Your task to perform on an android device: Go to location settings Image 0: 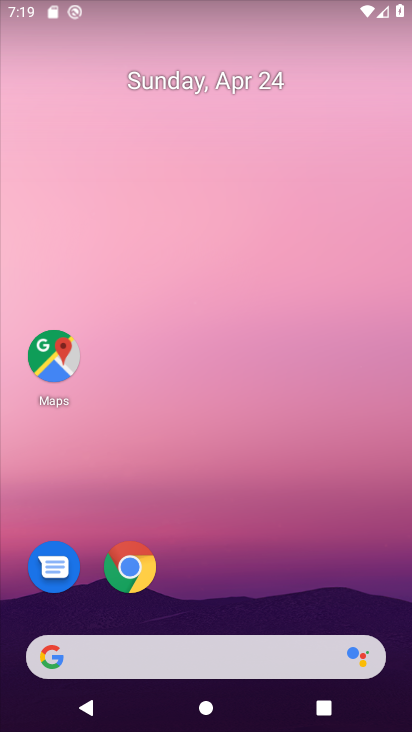
Step 0: drag from (277, 424) to (263, 5)
Your task to perform on an android device: Go to location settings Image 1: 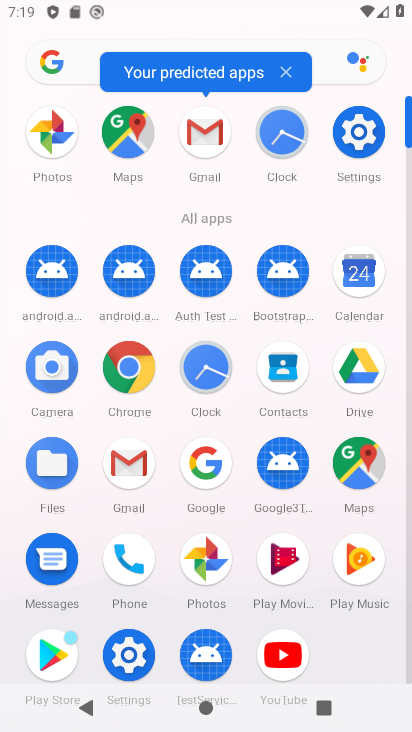
Step 1: drag from (357, 190) to (349, 140)
Your task to perform on an android device: Go to location settings Image 2: 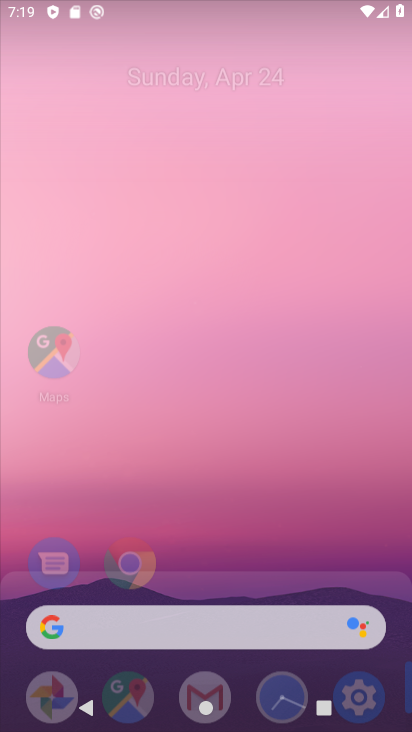
Step 2: click (371, 143)
Your task to perform on an android device: Go to location settings Image 3: 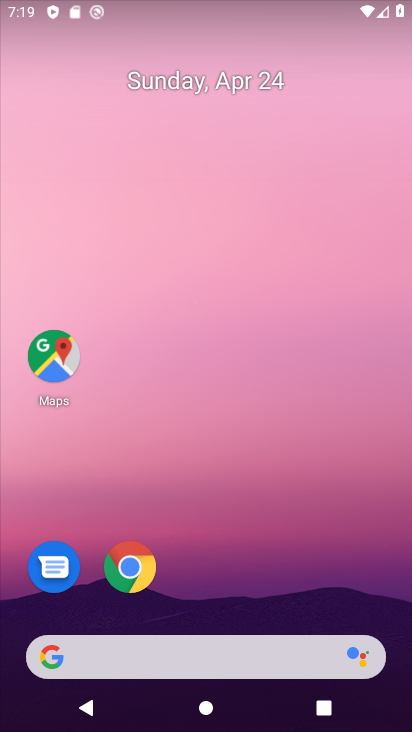
Step 3: drag from (329, 517) to (339, 97)
Your task to perform on an android device: Go to location settings Image 4: 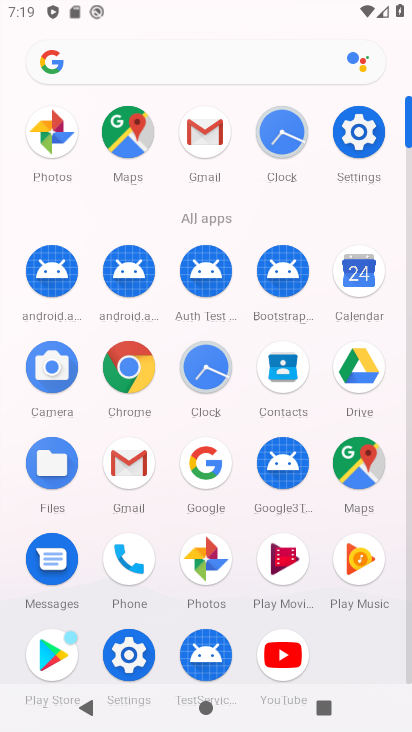
Step 4: click (351, 123)
Your task to perform on an android device: Go to location settings Image 5: 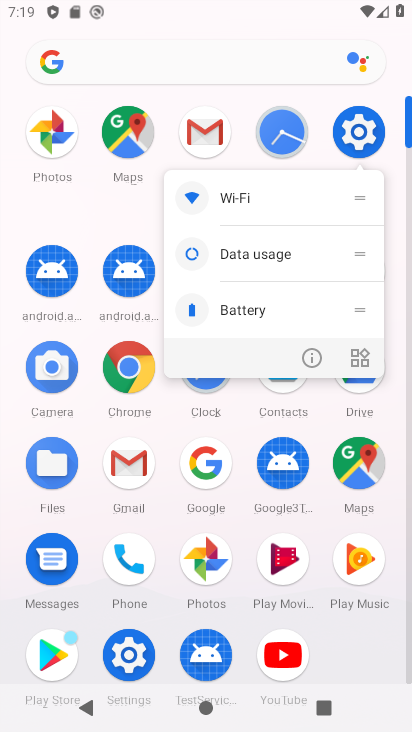
Step 5: click (351, 123)
Your task to perform on an android device: Go to location settings Image 6: 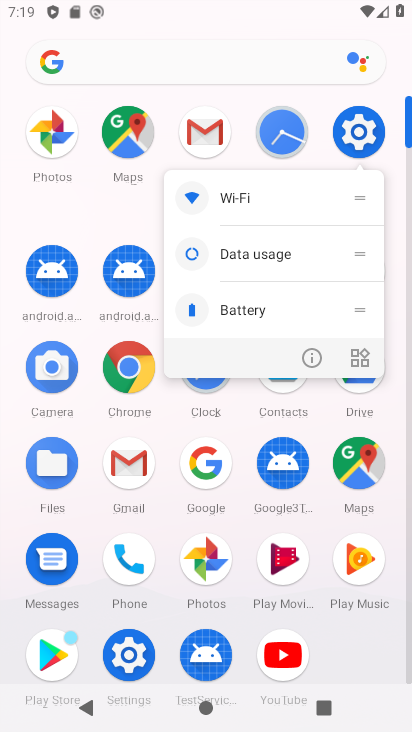
Step 6: click (351, 123)
Your task to perform on an android device: Go to location settings Image 7: 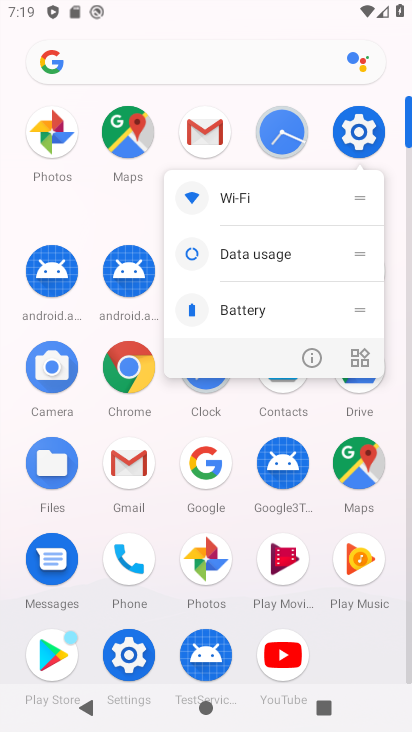
Step 7: click (351, 123)
Your task to perform on an android device: Go to location settings Image 8: 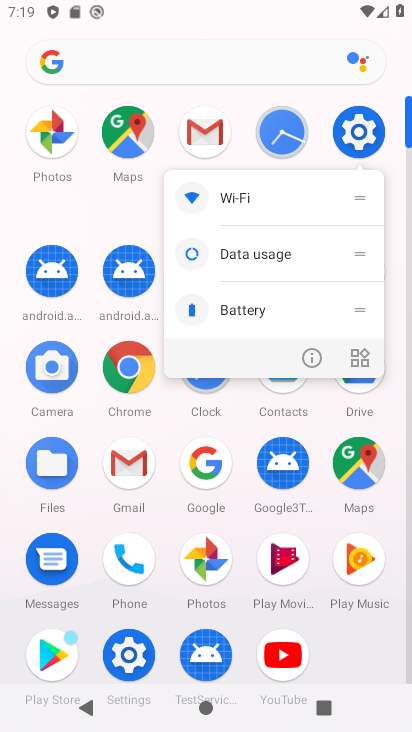
Step 8: click (351, 123)
Your task to perform on an android device: Go to location settings Image 9: 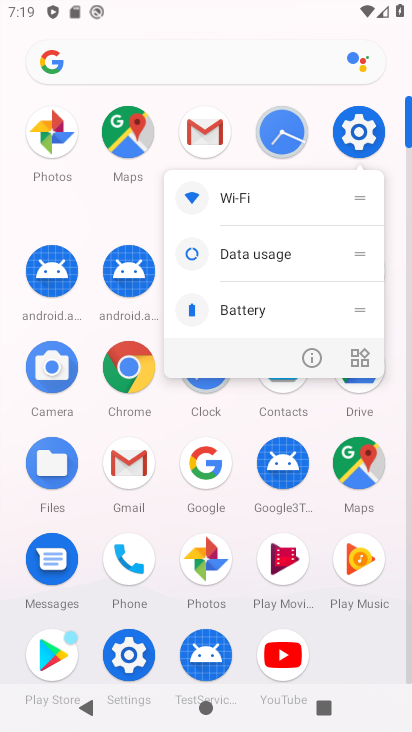
Step 9: click (351, 123)
Your task to perform on an android device: Go to location settings Image 10: 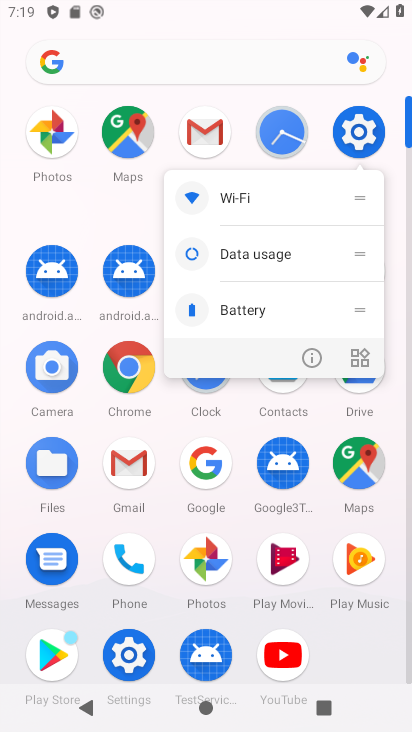
Step 10: click (351, 123)
Your task to perform on an android device: Go to location settings Image 11: 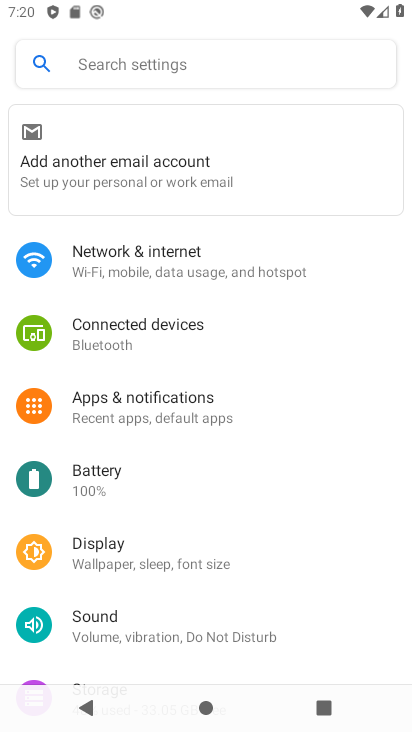
Step 11: drag from (180, 404) to (147, 170)
Your task to perform on an android device: Go to location settings Image 12: 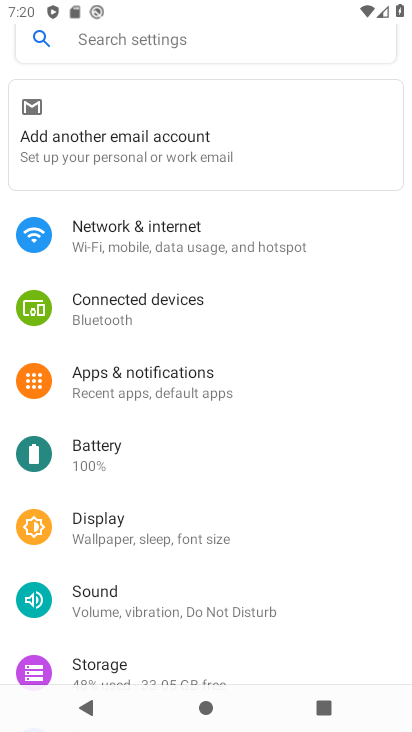
Step 12: drag from (180, 543) to (166, 144)
Your task to perform on an android device: Go to location settings Image 13: 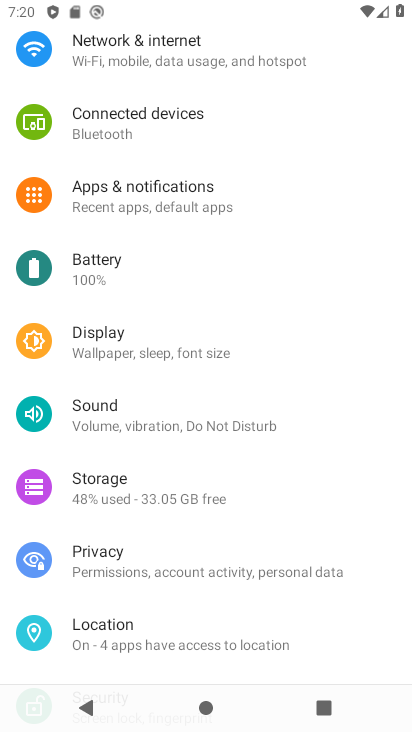
Step 13: drag from (133, 564) to (173, 198)
Your task to perform on an android device: Go to location settings Image 14: 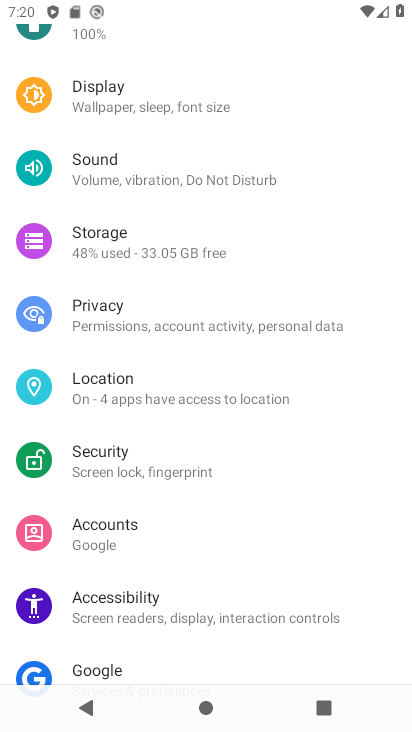
Step 14: click (114, 379)
Your task to perform on an android device: Go to location settings Image 15: 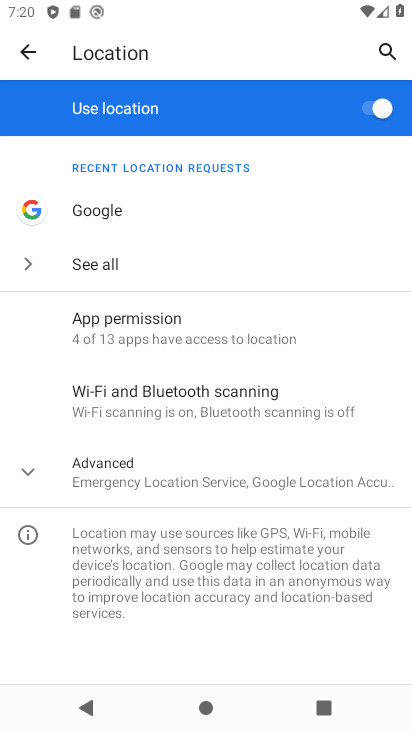
Step 15: task complete